Your task to perform on an android device: change notifications settings Image 0: 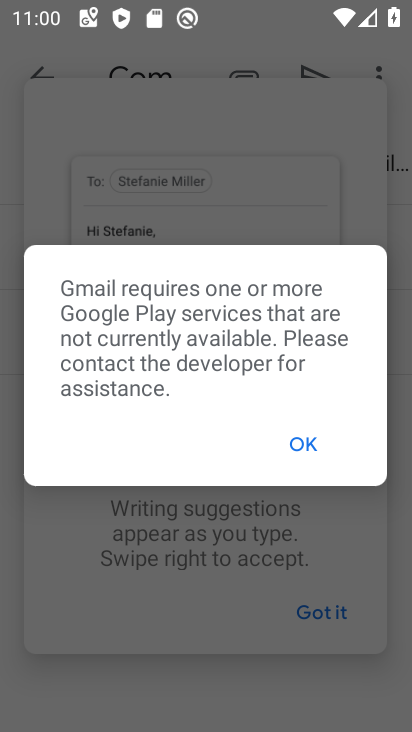
Step 0: press home button
Your task to perform on an android device: change notifications settings Image 1: 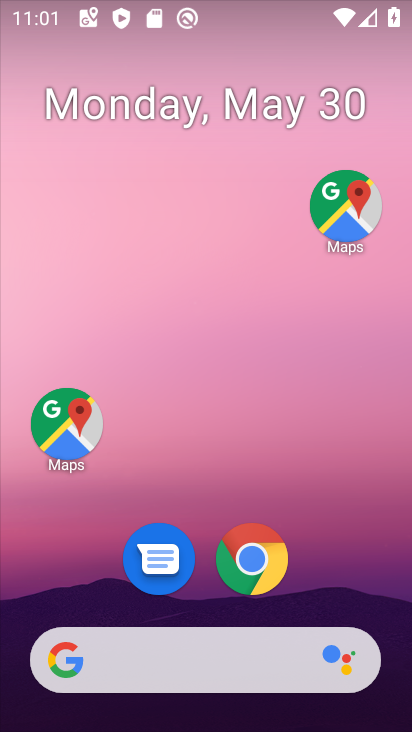
Step 1: drag from (349, 535) to (303, 116)
Your task to perform on an android device: change notifications settings Image 2: 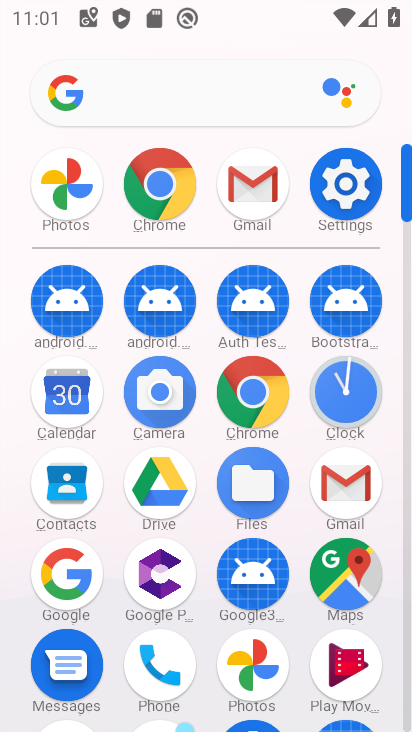
Step 2: click (334, 185)
Your task to perform on an android device: change notifications settings Image 3: 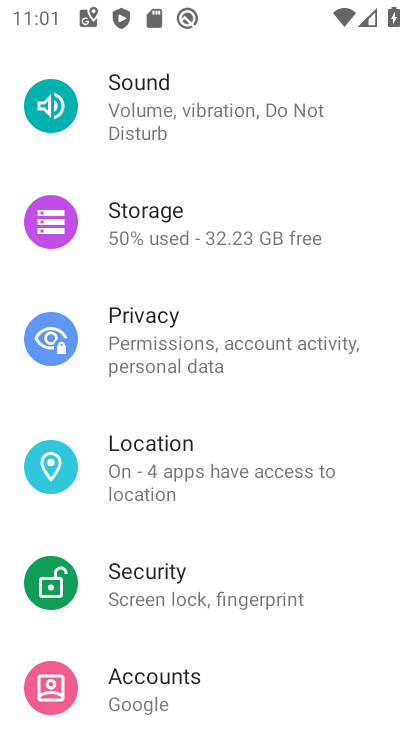
Step 3: drag from (244, 556) to (327, 128)
Your task to perform on an android device: change notifications settings Image 4: 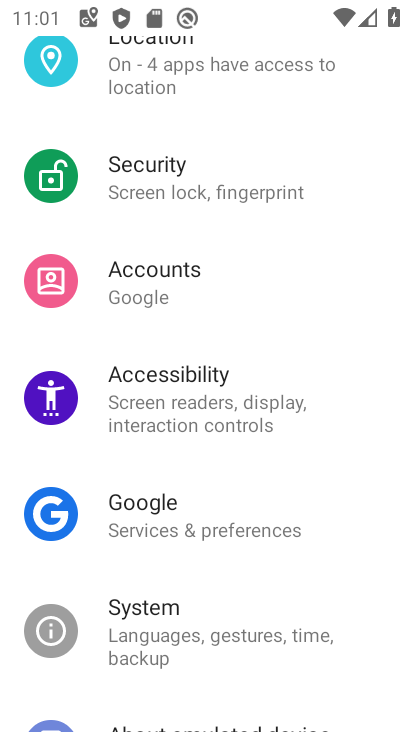
Step 4: drag from (241, 192) to (297, 680)
Your task to perform on an android device: change notifications settings Image 5: 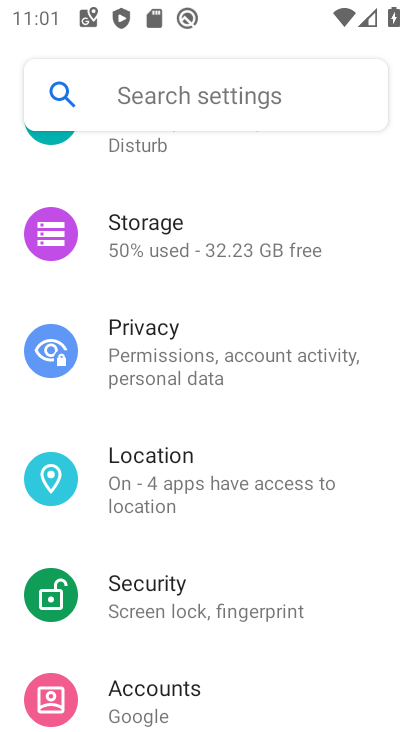
Step 5: drag from (216, 208) to (248, 640)
Your task to perform on an android device: change notifications settings Image 6: 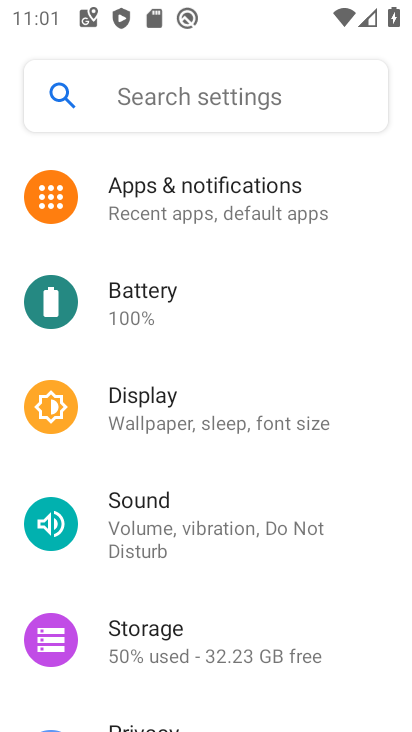
Step 6: click (195, 206)
Your task to perform on an android device: change notifications settings Image 7: 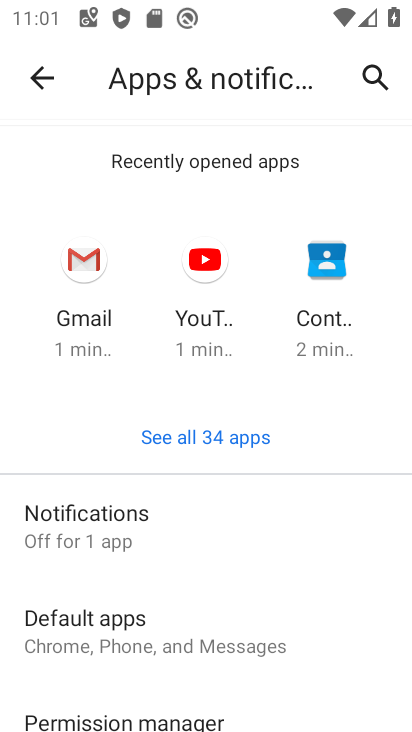
Step 7: click (107, 528)
Your task to perform on an android device: change notifications settings Image 8: 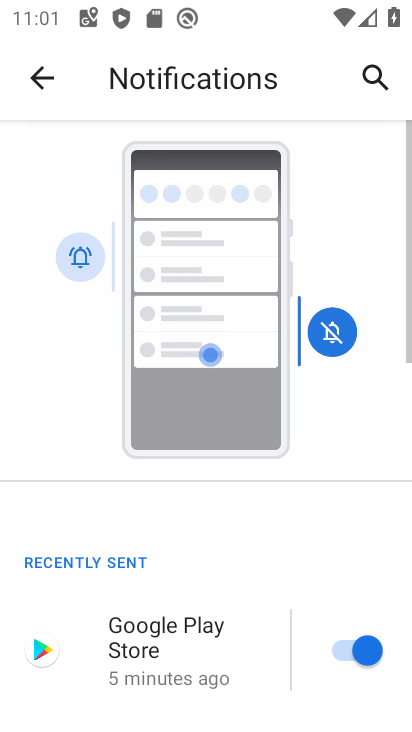
Step 8: drag from (291, 589) to (313, 131)
Your task to perform on an android device: change notifications settings Image 9: 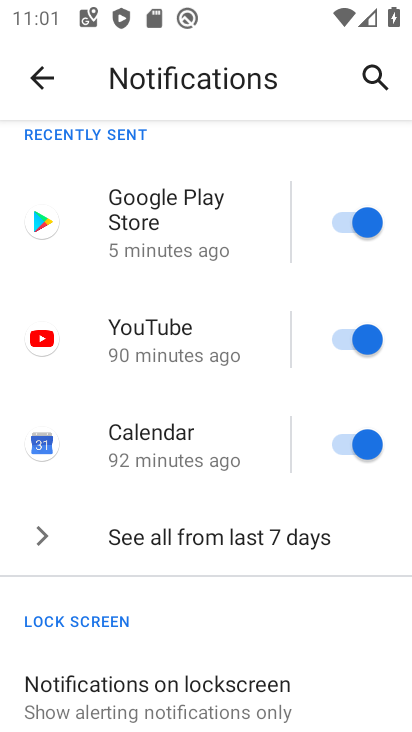
Step 9: drag from (287, 620) to (280, 113)
Your task to perform on an android device: change notifications settings Image 10: 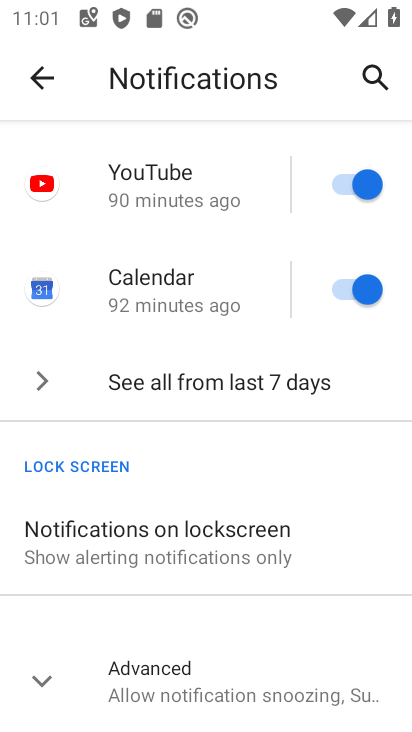
Step 10: click (211, 684)
Your task to perform on an android device: change notifications settings Image 11: 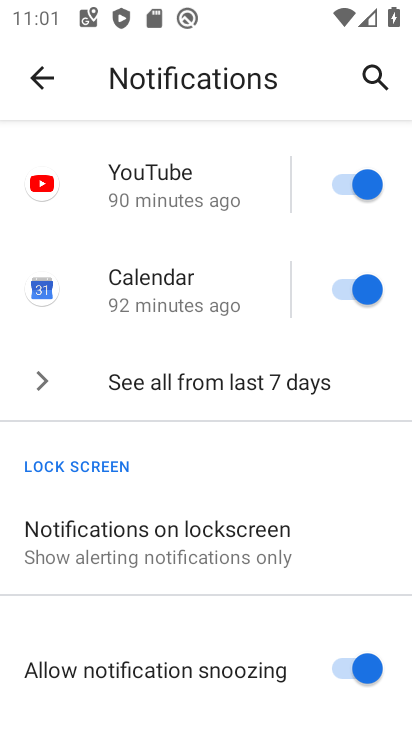
Step 11: click (360, 660)
Your task to perform on an android device: change notifications settings Image 12: 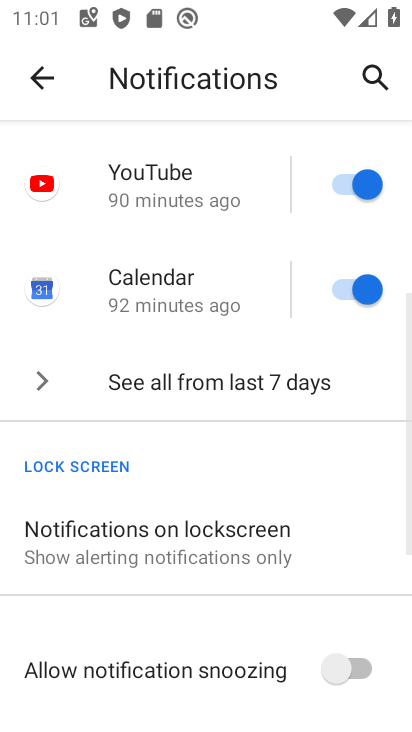
Step 12: task complete